Your task to perform on an android device: Open Chrome and go to the settings page Image 0: 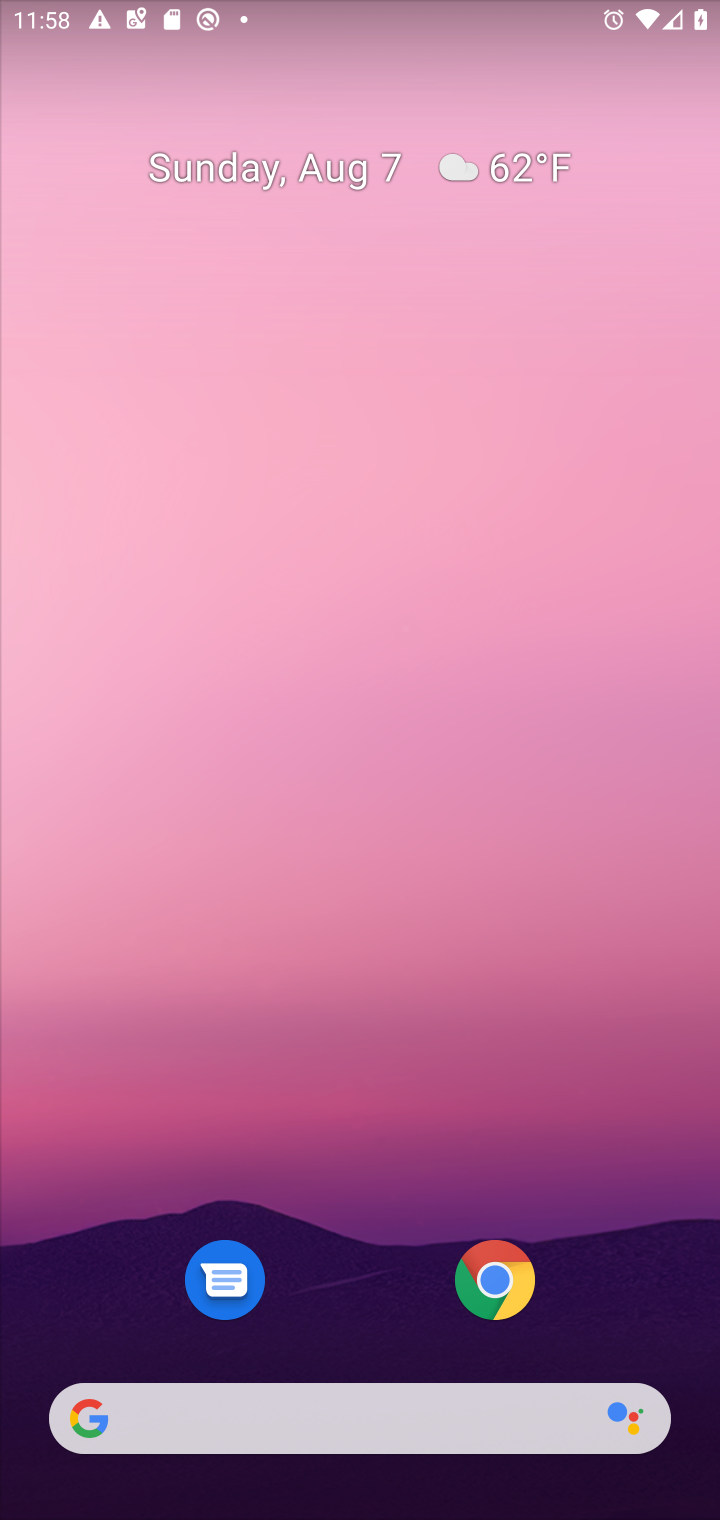
Step 0: click (497, 1291)
Your task to perform on an android device: Open Chrome and go to the settings page Image 1: 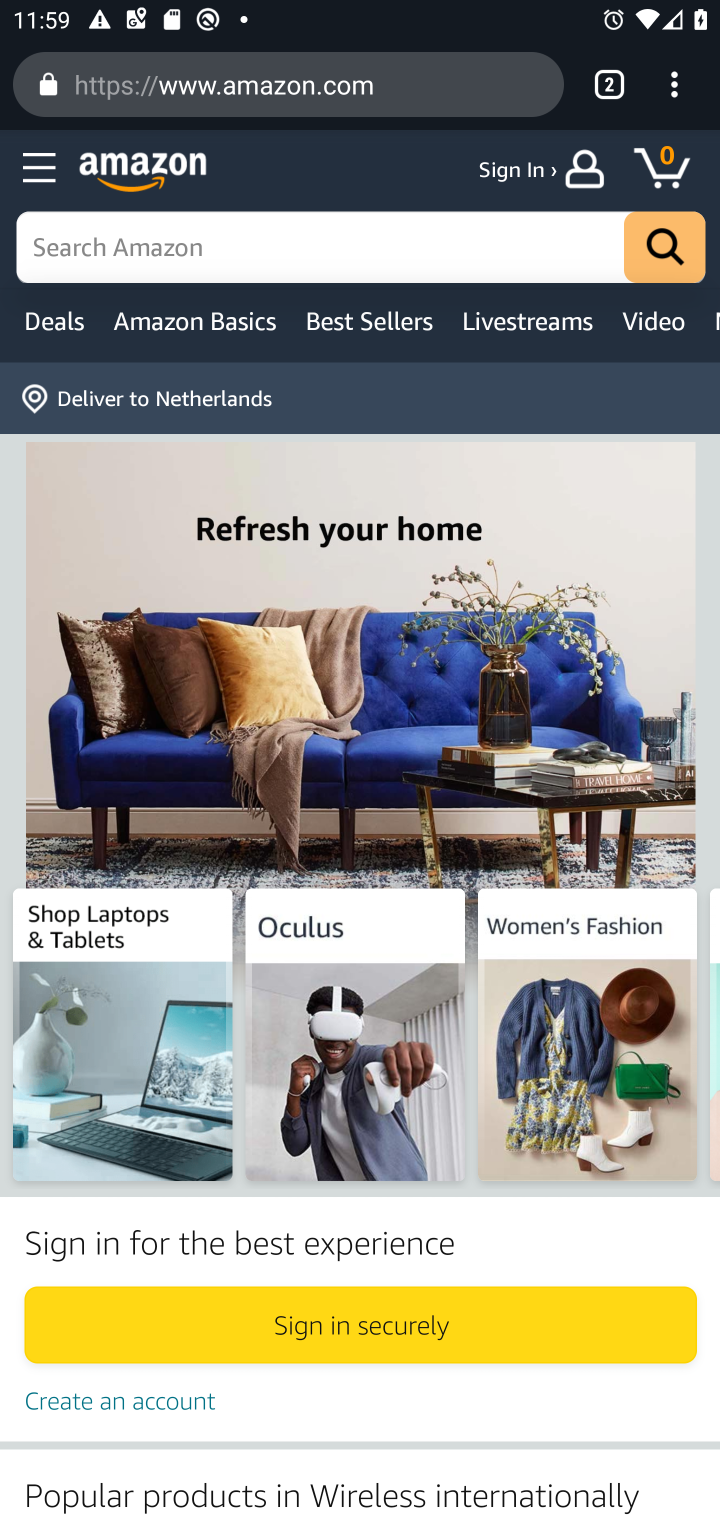
Step 1: task complete